Your task to perform on an android device: check storage Image 0: 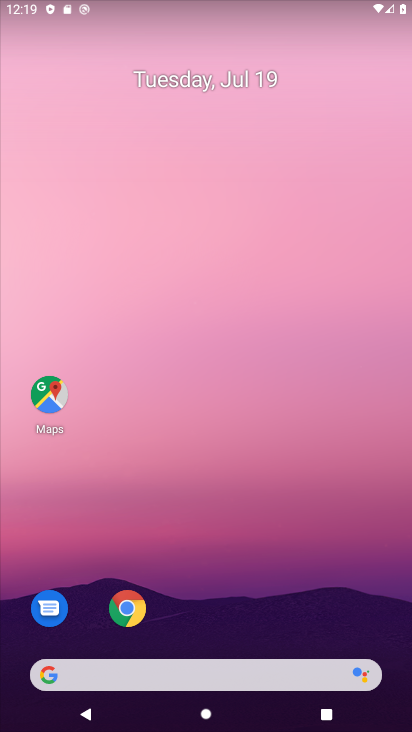
Step 0: drag from (249, 516) to (278, 159)
Your task to perform on an android device: check storage Image 1: 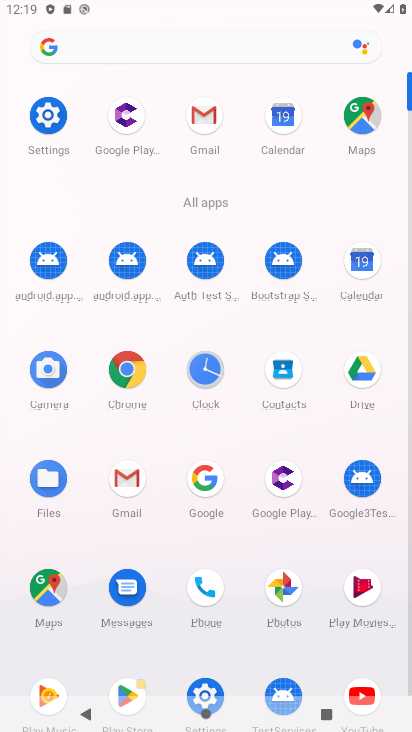
Step 1: click (212, 685)
Your task to perform on an android device: check storage Image 2: 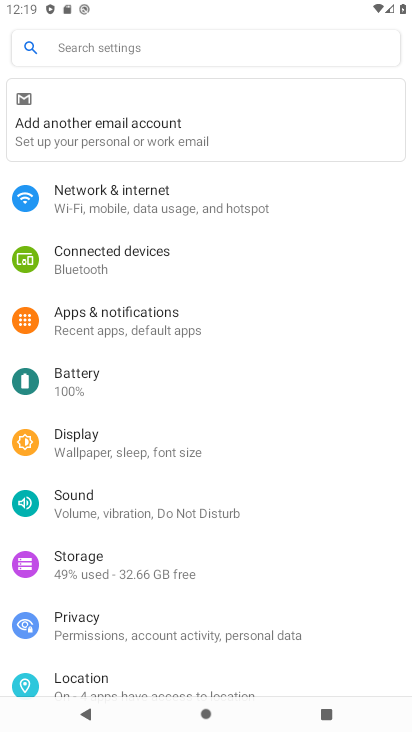
Step 2: click (94, 562)
Your task to perform on an android device: check storage Image 3: 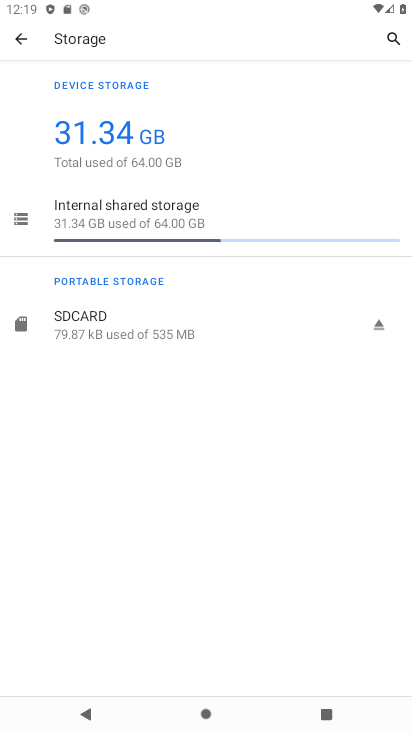
Step 3: task complete